Your task to perform on an android device: set the stopwatch Image 0: 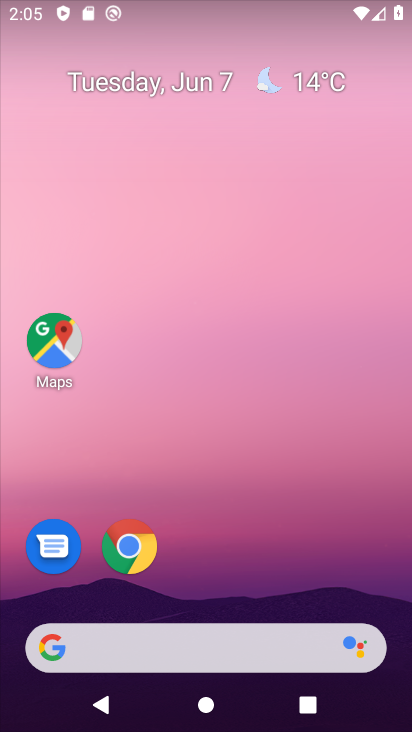
Step 0: drag from (270, 412) to (303, 12)
Your task to perform on an android device: set the stopwatch Image 1: 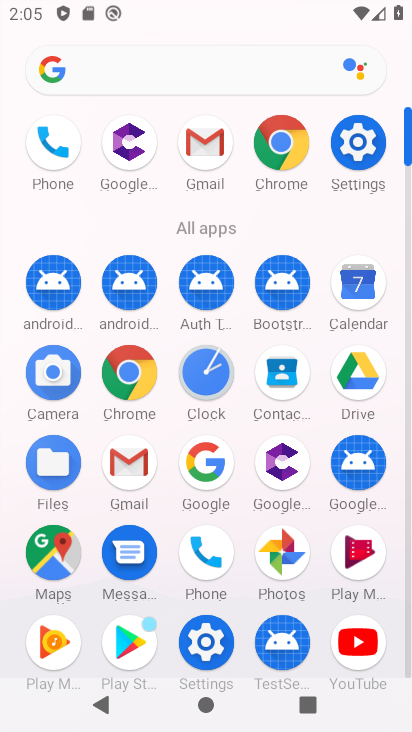
Step 1: click (196, 391)
Your task to perform on an android device: set the stopwatch Image 2: 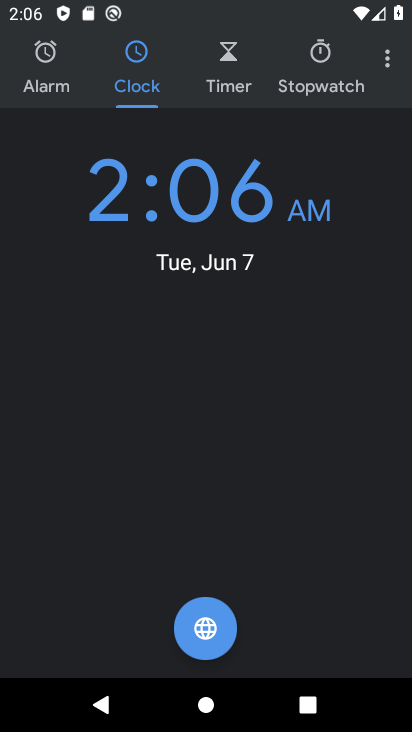
Step 2: click (321, 87)
Your task to perform on an android device: set the stopwatch Image 3: 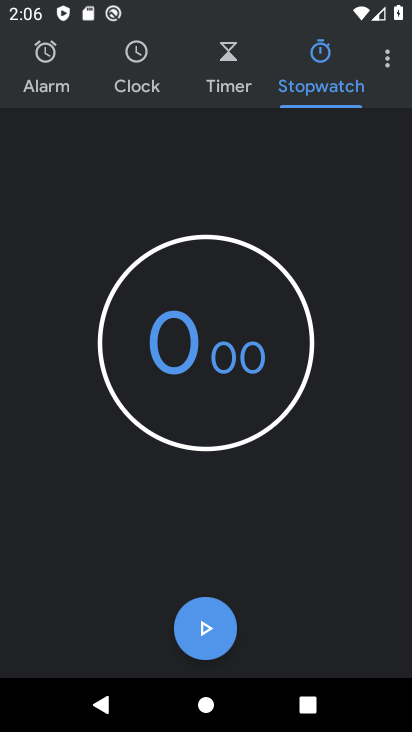
Step 3: task complete